Your task to perform on an android device: Open the phone app and click the voicemail tab. Image 0: 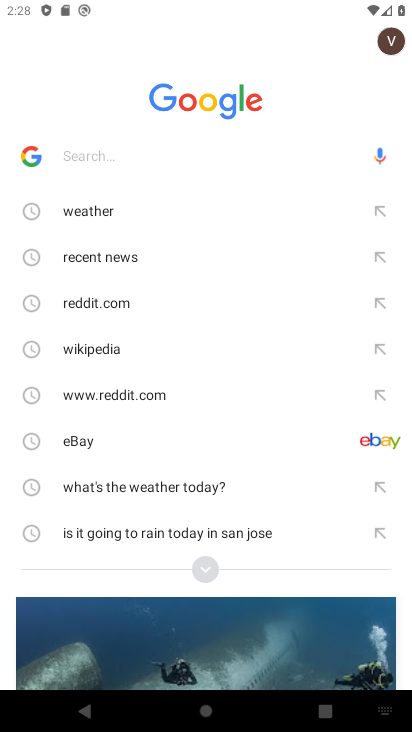
Step 0: press home button
Your task to perform on an android device: Open the phone app and click the voicemail tab. Image 1: 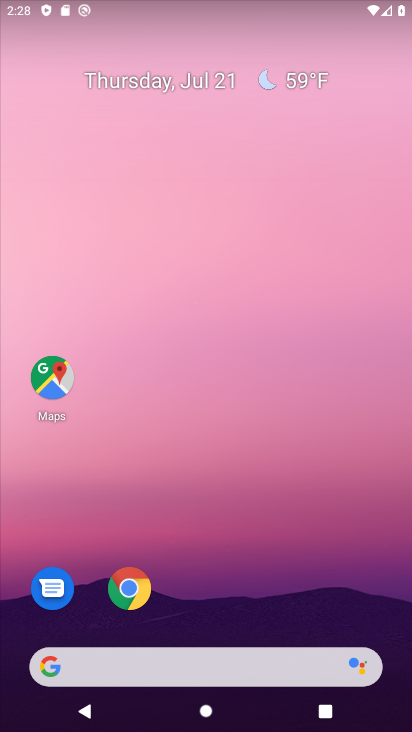
Step 1: drag from (393, 613) to (406, 263)
Your task to perform on an android device: Open the phone app and click the voicemail tab. Image 2: 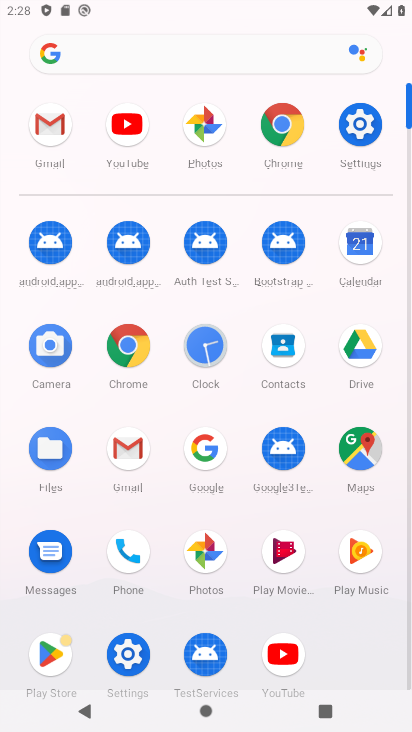
Step 2: click (114, 548)
Your task to perform on an android device: Open the phone app and click the voicemail tab. Image 3: 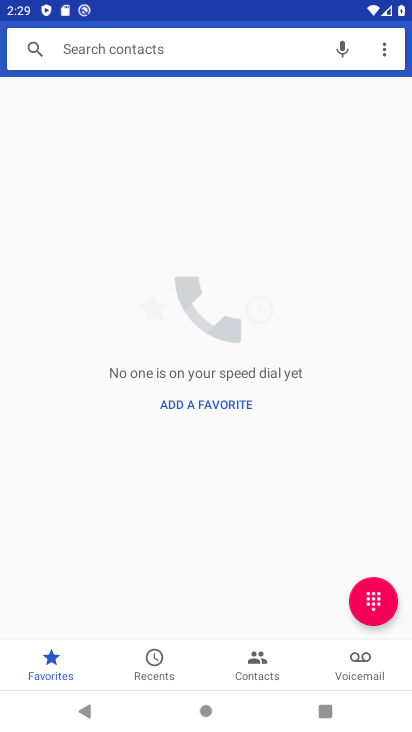
Step 3: click (354, 659)
Your task to perform on an android device: Open the phone app and click the voicemail tab. Image 4: 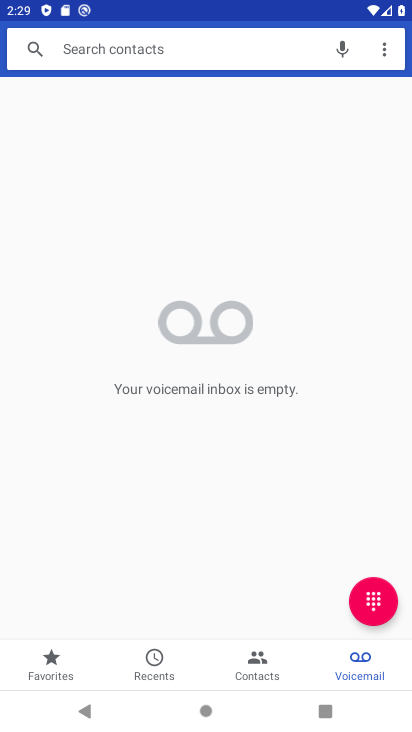
Step 4: task complete